Your task to perform on an android device: choose inbox layout in the gmail app Image 0: 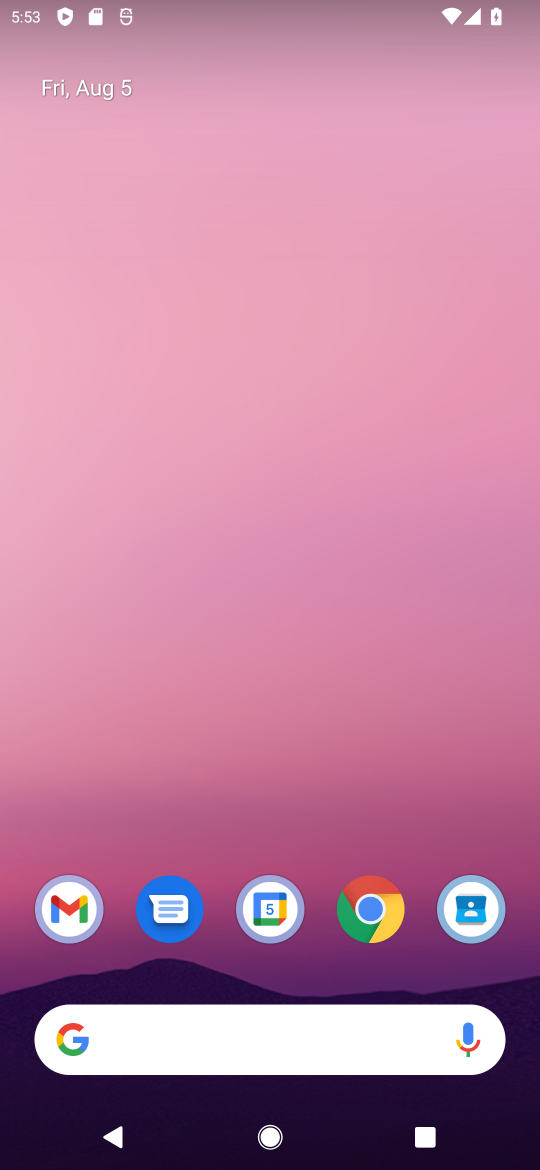
Step 0: press home button
Your task to perform on an android device: choose inbox layout in the gmail app Image 1: 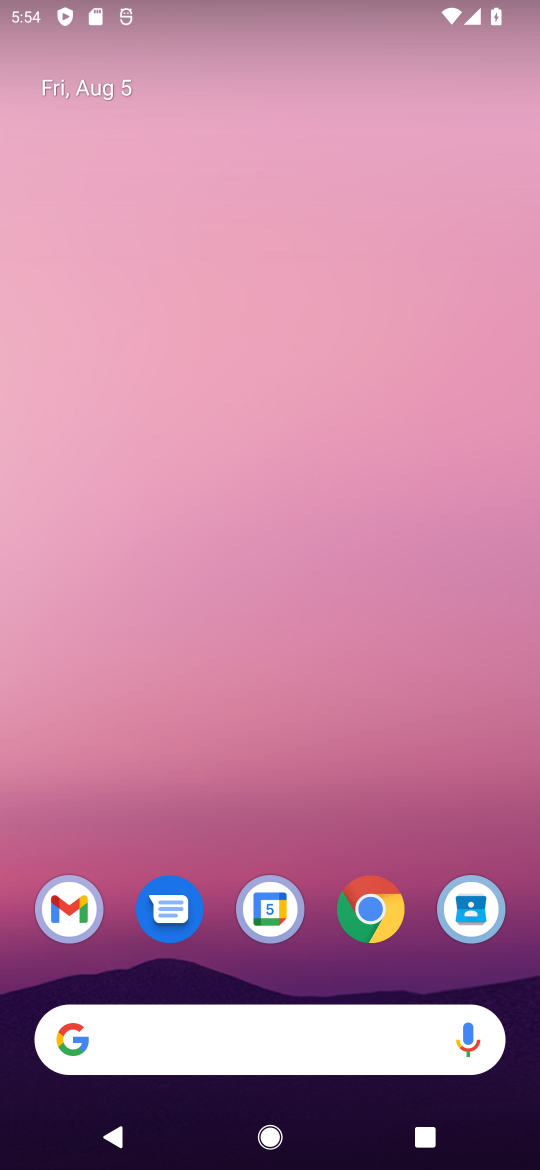
Step 1: click (70, 914)
Your task to perform on an android device: choose inbox layout in the gmail app Image 2: 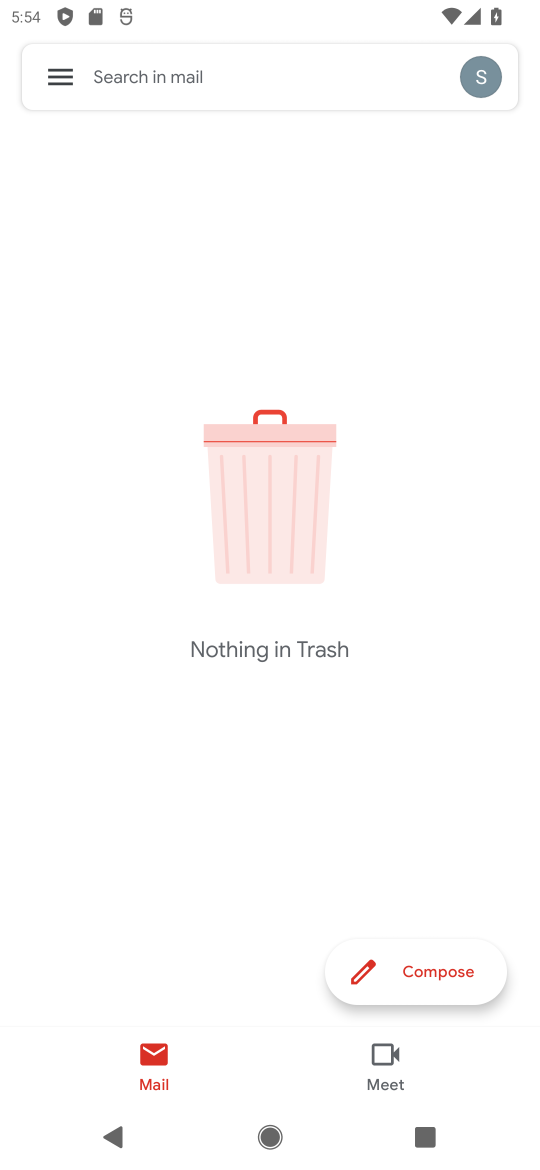
Step 2: click (62, 79)
Your task to perform on an android device: choose inbox layout in the gmail app Image 3: 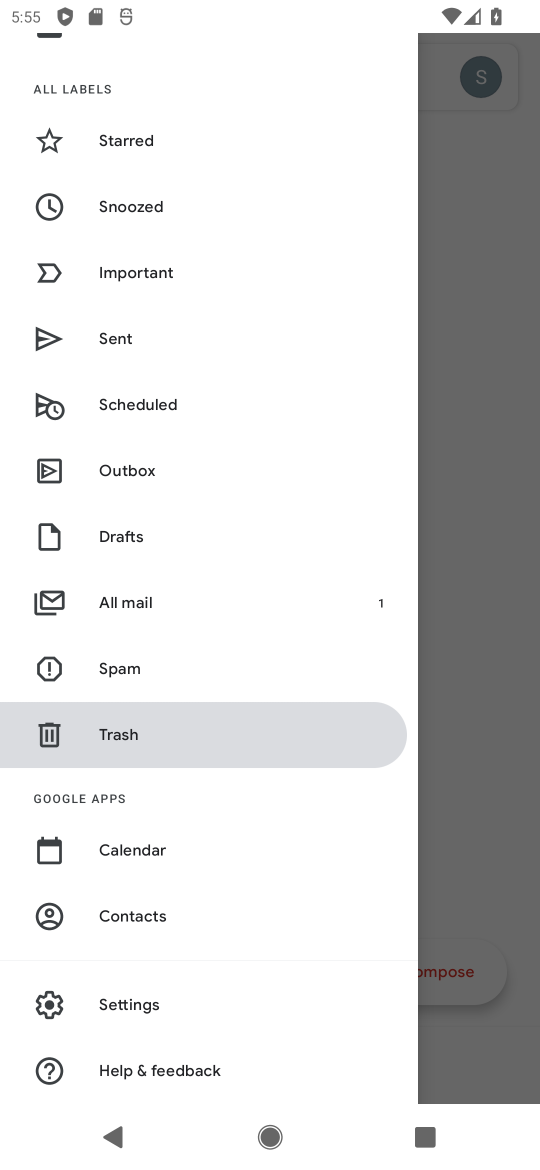
Step 3: click (117, 1008)
Your task to perform on an android device: choose inbox layout in the gmail app Image 4: 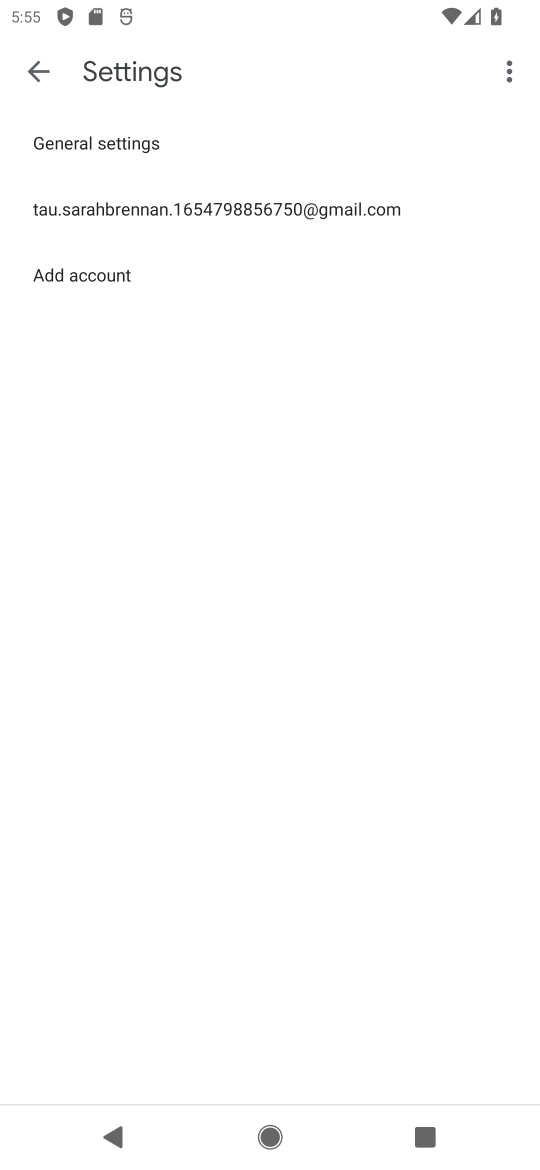
Step 4: click (136, 219)
Your task to perform on an android device: choose inbox layout in the gmail app Image 5: 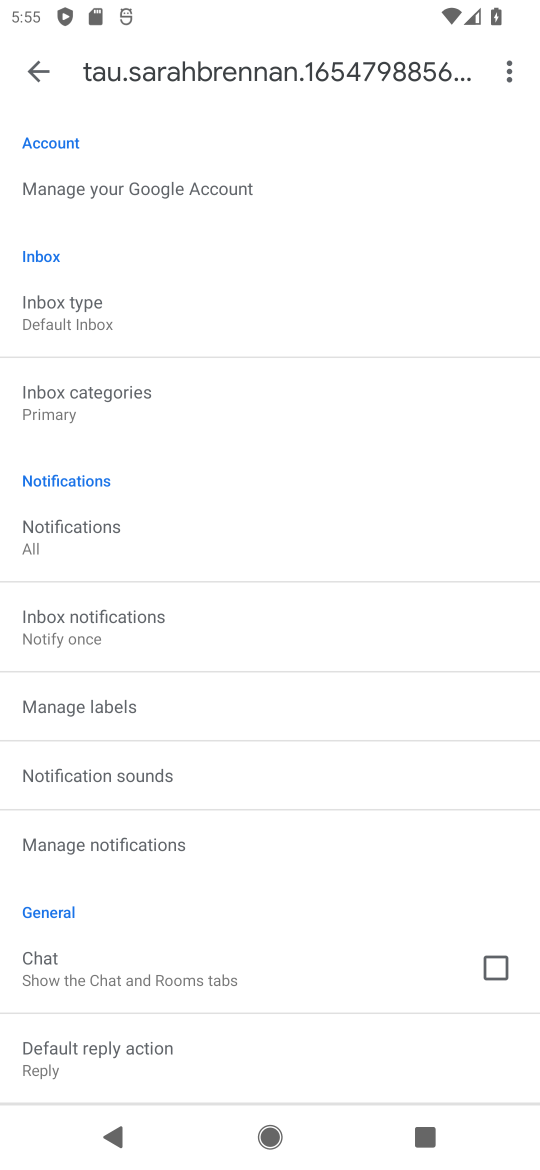
Step 5: click (75, 317)
Your task to perform on an android device: choose inbox layout in the gmail app Image 6: 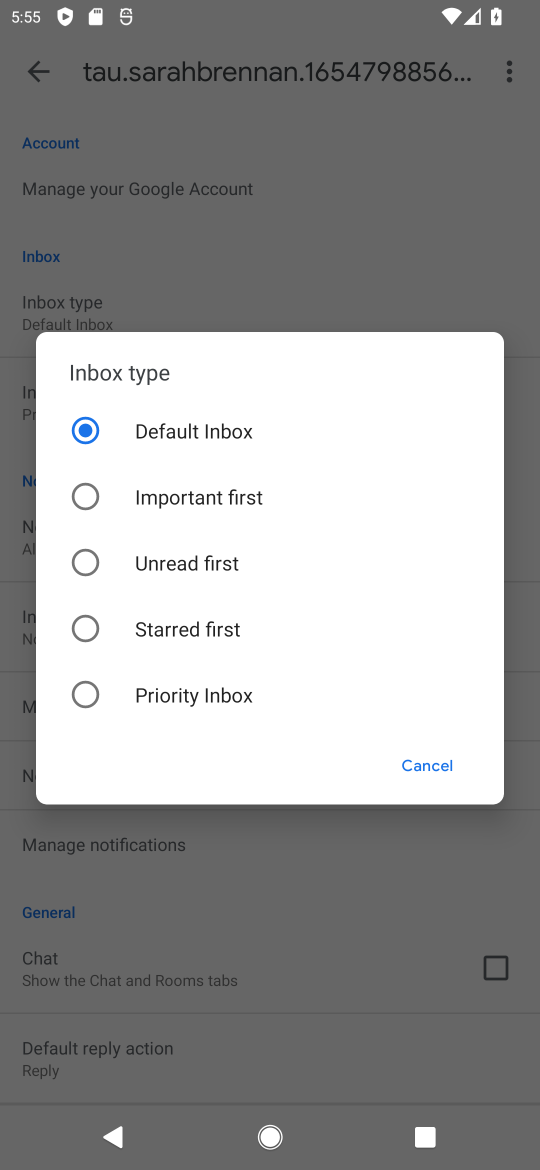
Step 6: click (85, 492)
Your task to perform on an android device: choose inbox layout in the gmail app Image 7: 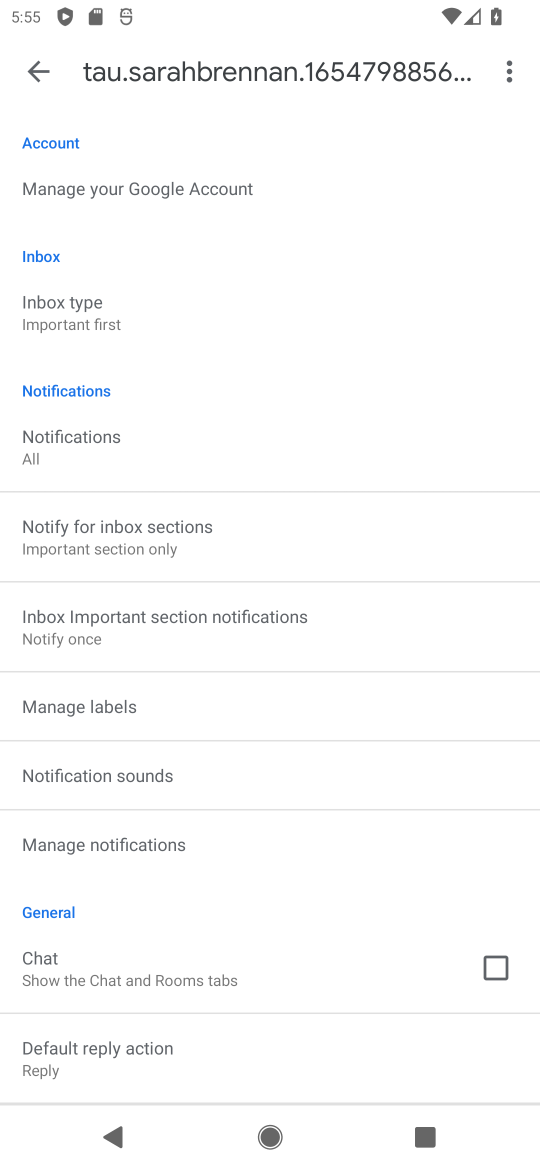
Step 7: task complete